Your task to perform on an android device: Go to Google maps Image 0: 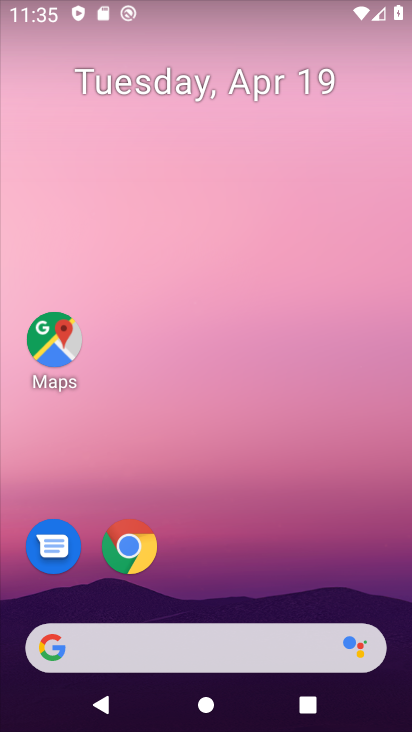
Step 0: drag from (289, 531) to (273, 24)
Your task to perform on an android device: Go to Google maps Image 1: 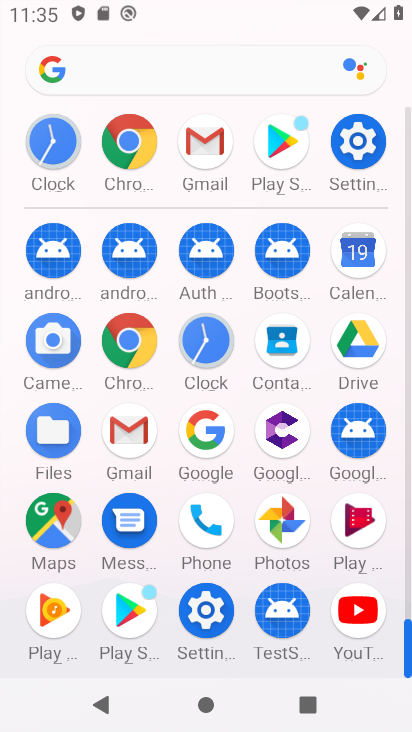
Step 1: click (52, 519)
Your task to perform on an android device: Go to Google maps Image 2: 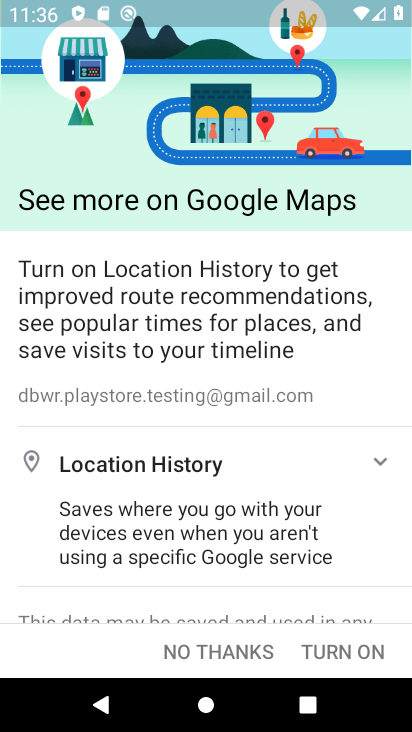
Step 2: click (317, 654)
Your task to perform on an android device: Go to Google maps Image 3: 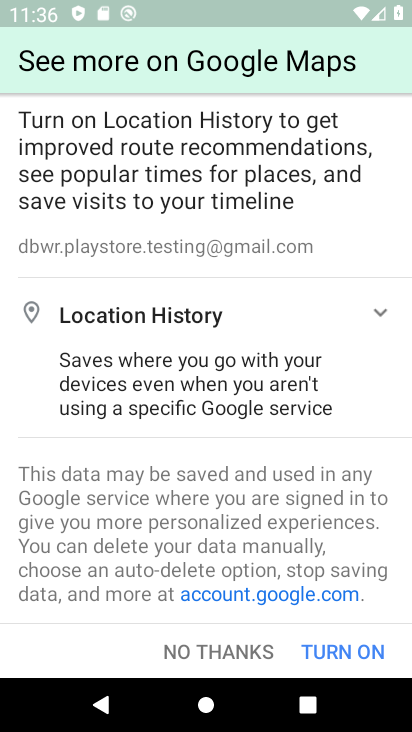
Step 3: click (317, 654)
Your task to perform on an android device: Go to Google maps Image 4: 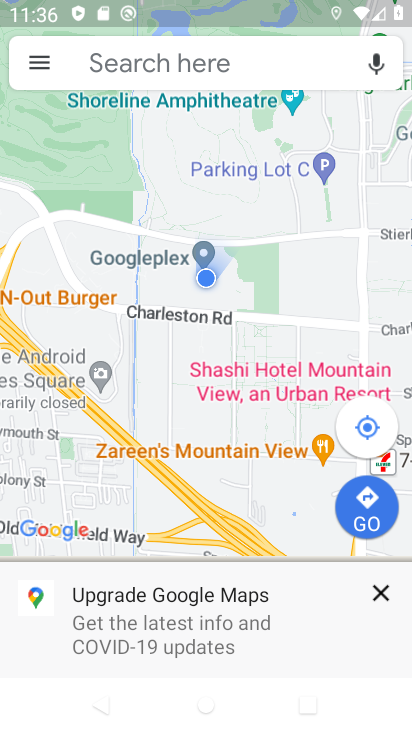
Step 4: task complete